Your task to perform on an android device: Open Chrome and go to settings Image 0: 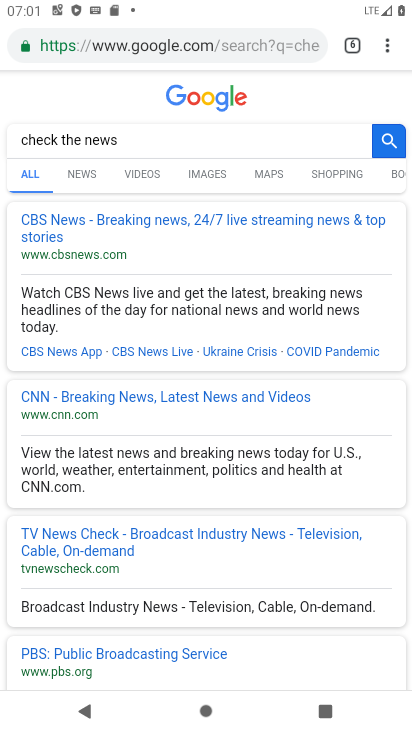
Step 0: press home button
Your task to perform on an android device: Open Chrome and go to settings Image 1: 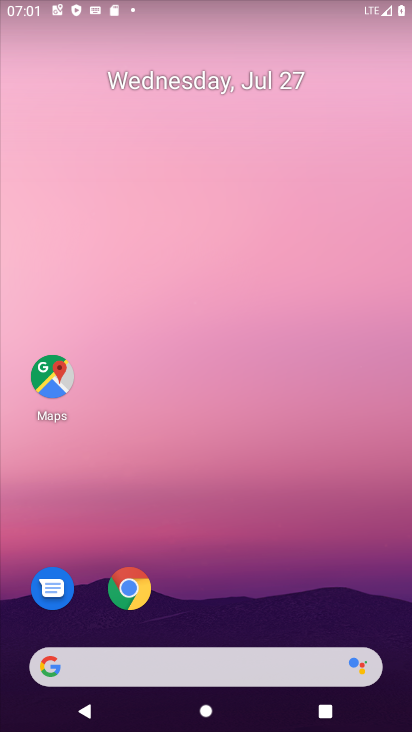
Step 1: drag from (243, 608) to (388, 39)
Your task to perform on an android device: Open Chrome and go to settings Image 2: 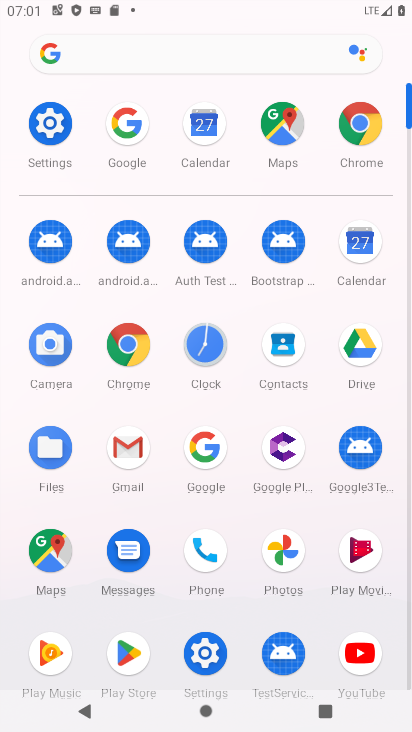
Step 2: click (140, 334)
Your task to perform on an android device: Open Chrome and go to settings Image 3: 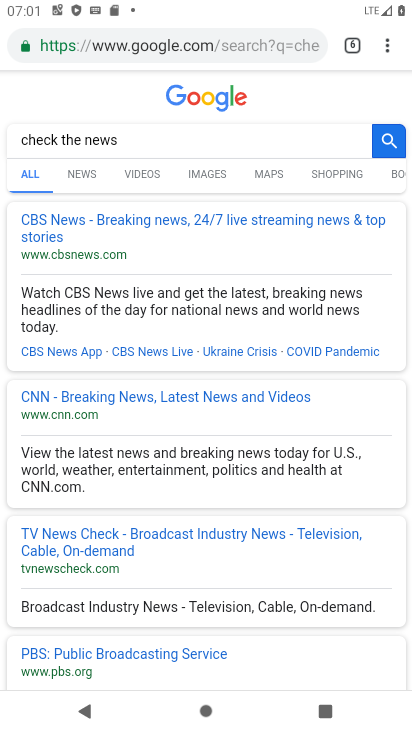
Step 3: click (391, 52)
Your task to perform on an android device: Open Chrome and go to settings Image 4: 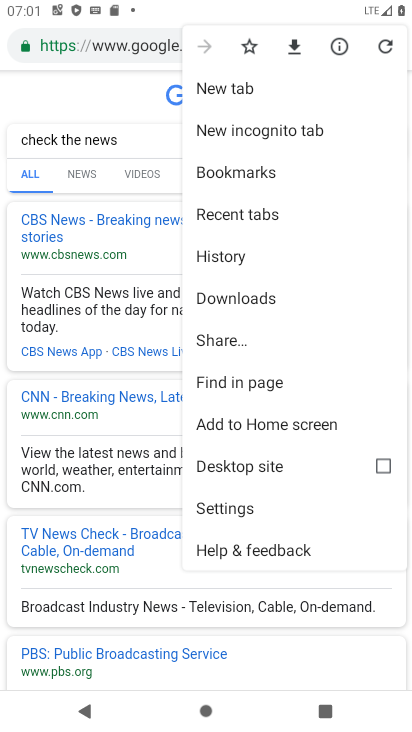
Step 4: click (274, 513)
Your task to perform on an android device: Open Chrome and go to settings Image 5: 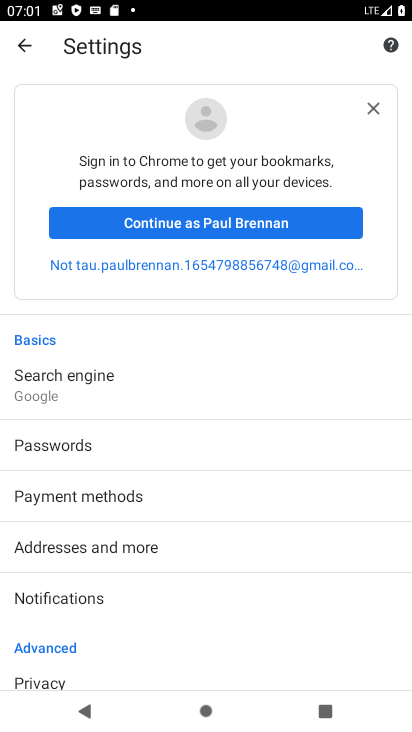
Step 5: task complete